Your task to perform on an android device: see tabs open on other devices in the chrome app Image 0: 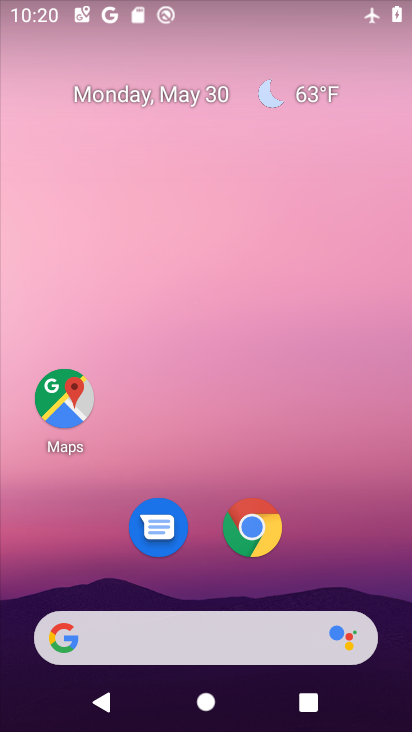
Step 0: drag from (316, 579) to (316, 441)
Your task to perform on an android device: see tabs open on other devices in the chrome app Image 1: 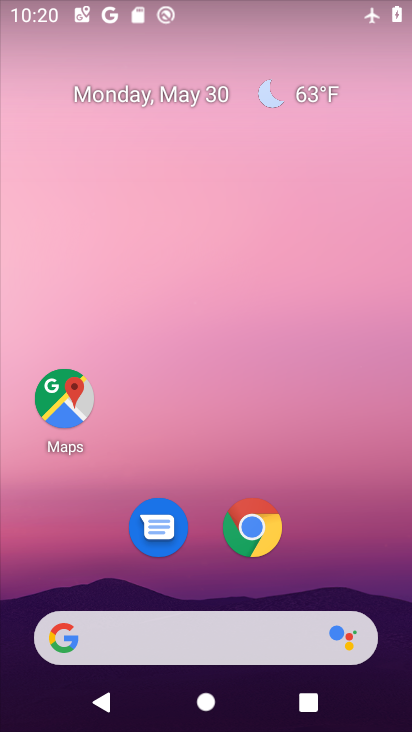
Step 1: drag from (278, 565) to (267, 257)
Your task to perform on an android device: see tabs open on other devices in the chrome app Image 2: 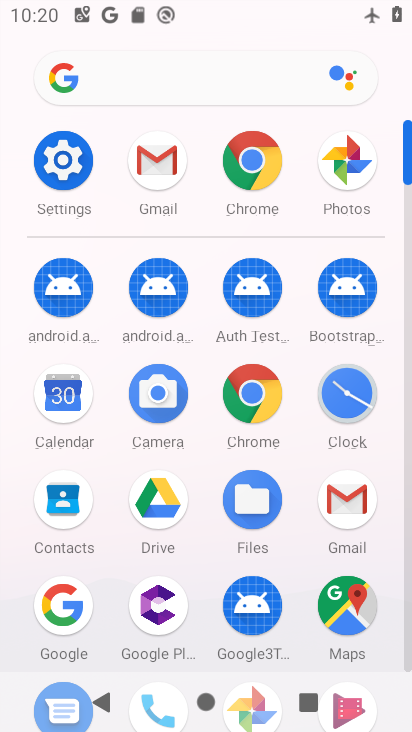
Step 2: click (247, 142)
Your task to perform on an android device: see tabs open on other devices in the chrome app Image 3: 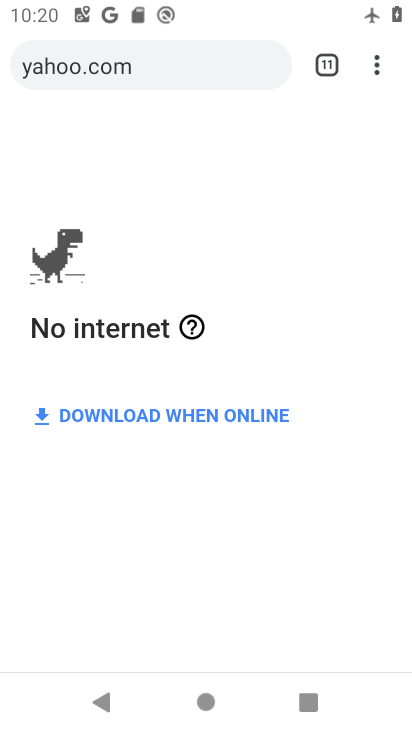
Step 3: click (368, 51)
Your task to perform on an android device: see tabs open on other devices in the chrome app Image 4: 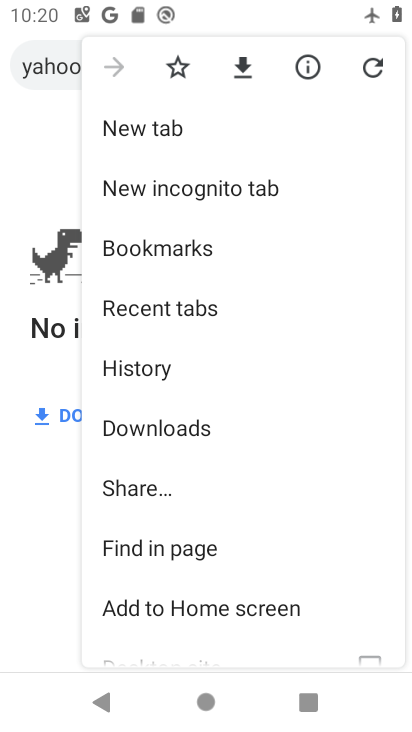
Step 4: click (169, 125)
Your task to perform on an android device: see tabs open on other devices in the chrome app Image 5: 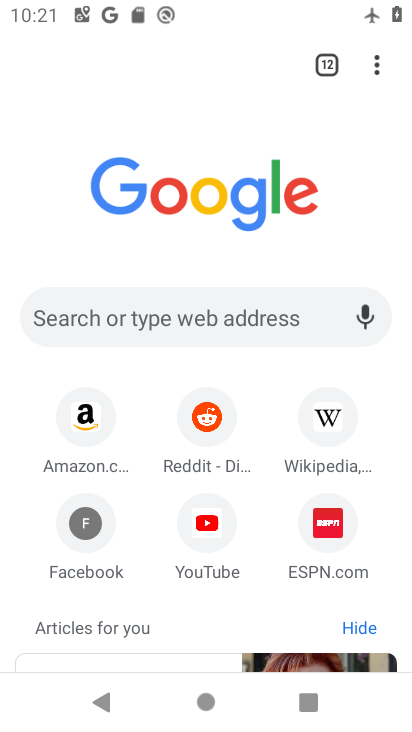
Step 5: task complete